Your task to perform on an android device: Open sound settings Image 0: 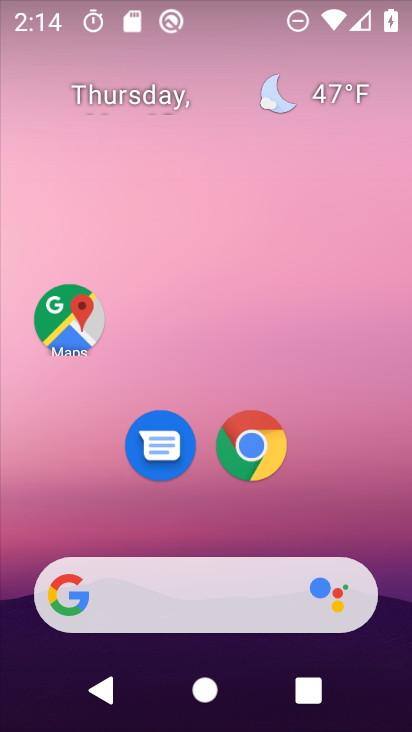
Step 0: drag from (200, 534) to (210, 271)
Your task to perform on an android device: Open sound settings Image 1: 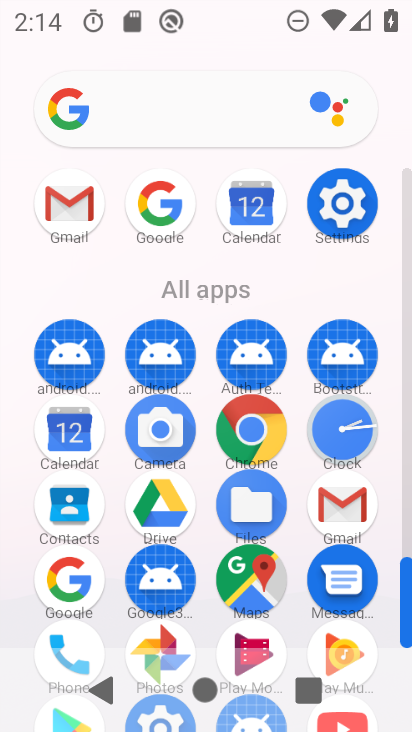
Step 1: click (339, 224)
Your task to perform on an android device: Open sound settings Image 2: 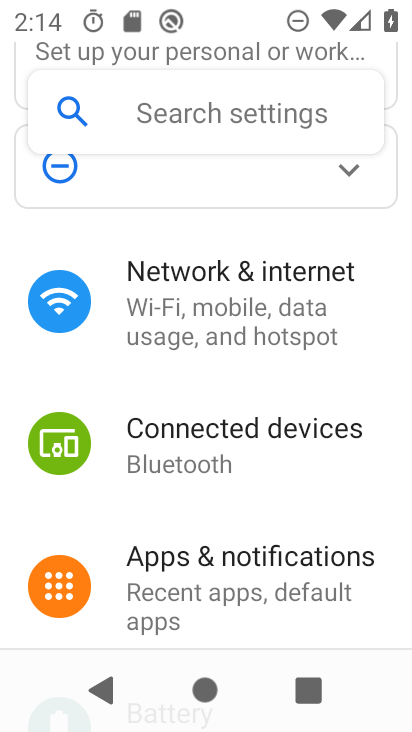
Step 2: drag from (253, 583) to (284, 317)
Your task to perform on an android device: Open sound settings Image 3: 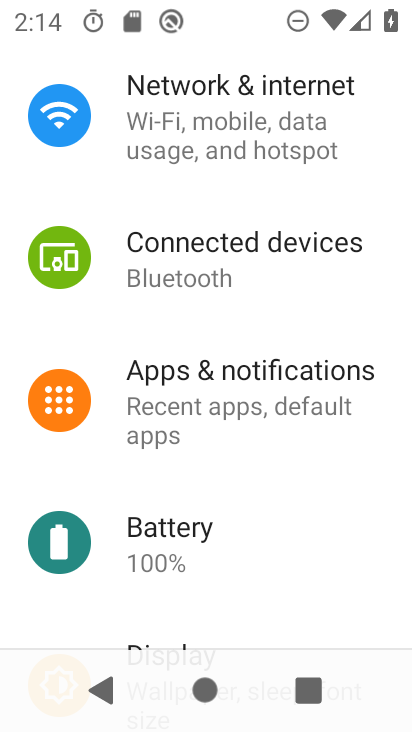
Step 3: drag from (220, 551) to (262, 335)
Your task to perform on an android device: Open sound settings Image 4: 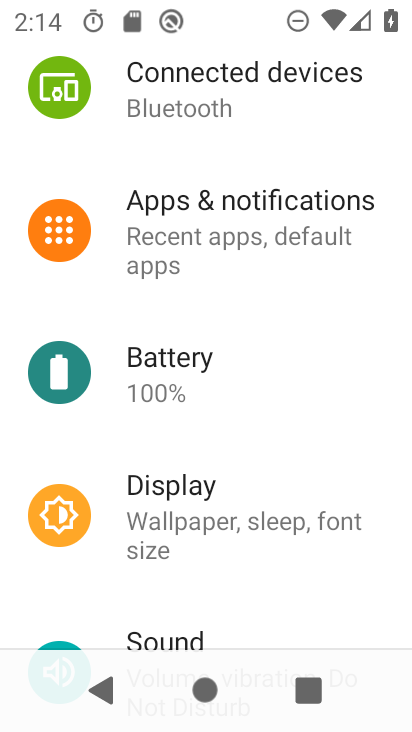
Step 4: drag from (256, 519) to (284, 378)
Your task to perform on an android device: Open sound settings Image 5: 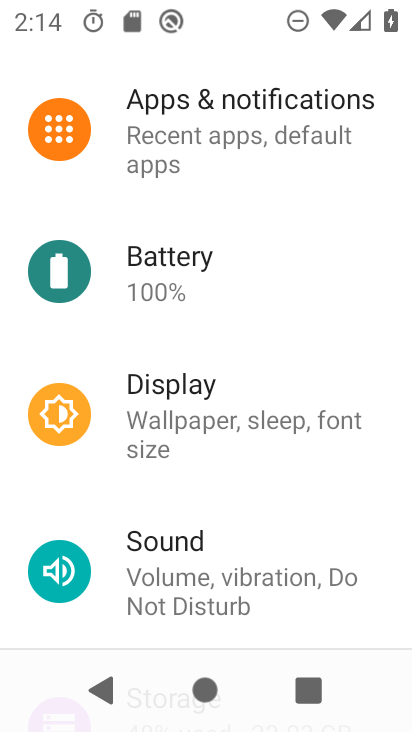
Step 5: click (215, 553)
Your task to perform on an android device: Open sound settings Image 6: 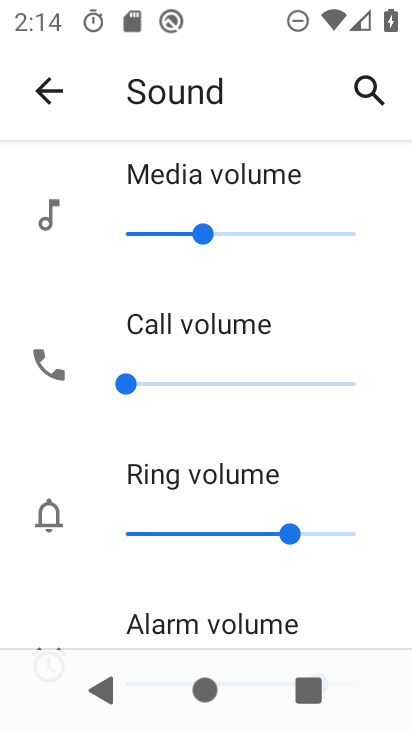
Step 6: drag from (222, 577) to (248, 361)
Your task to perform on an android device: Open sound settings Image 7: 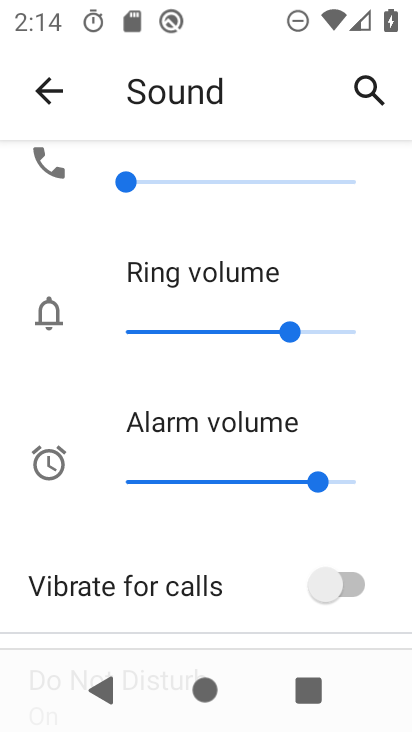
Step 7: drag from (220, 539) to (232, 267)
Your task to perform on an android device: Open sound settings Image 8: 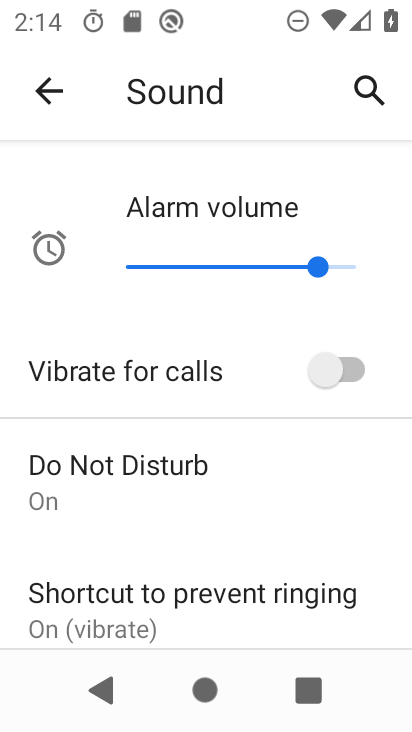
Step 8: drag from (225, 537) to (233, 324)
Your task to perform on an android device: Open sound settings Image 9: 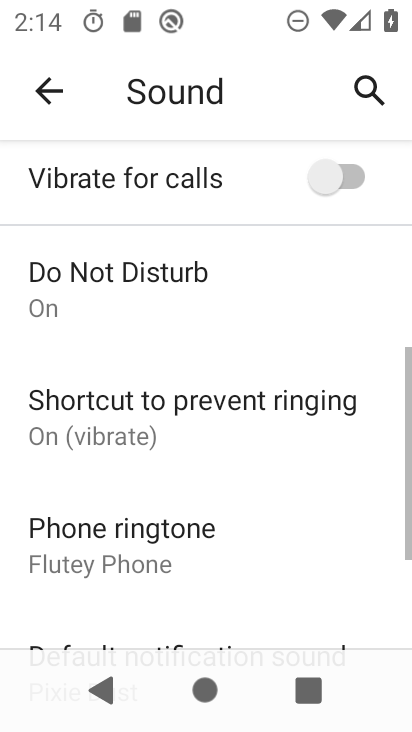
Step 9: drag from (235, 548) to (243, 316)
Your task to perform on an android device: Open sound settings Image 10: 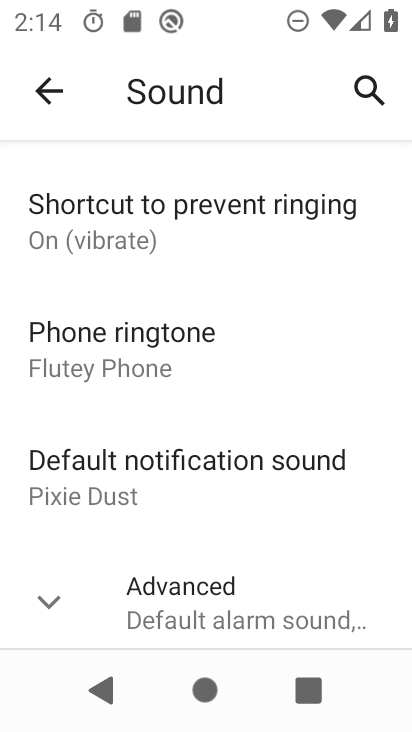
Step 10: drag from (243, 563) to (258, 327)
Your task to perform on an android device: Open sound settings Image 11: 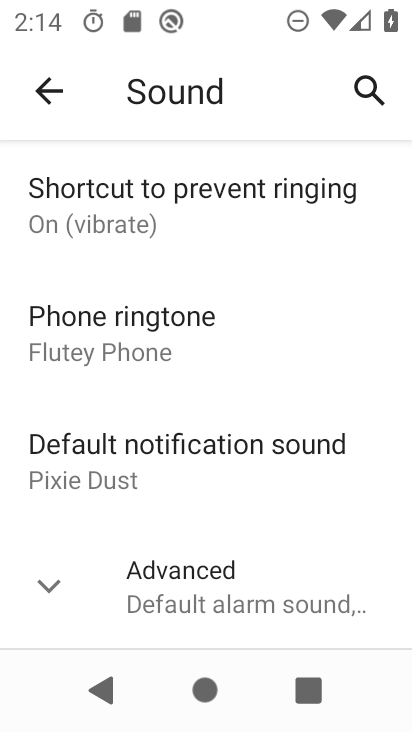
Step 11: drag from (272, 579) to (275, 310)
Your task to perform on an android device: Open sound settings Image 12: 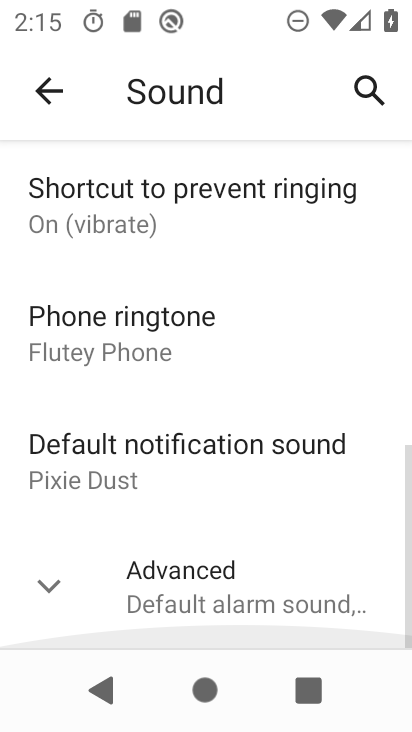
Step 12: drag from (276, 563) to (289, 361)
Your task to perform on an android device: Open sound settings Image 13: 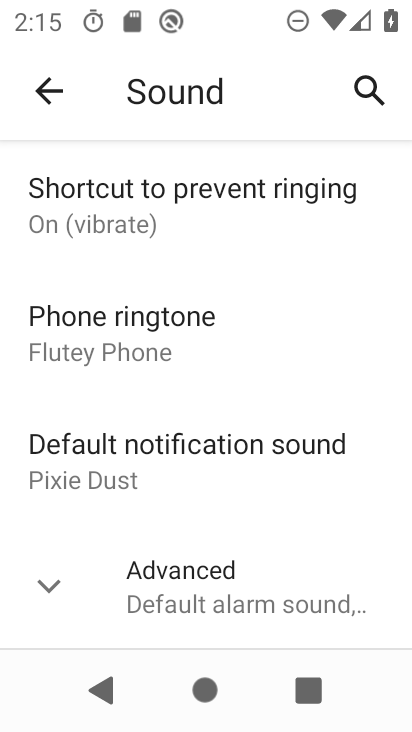
Step 13: click (251, 582)
Your task to perform on an android device: Open sound settings Image 14: 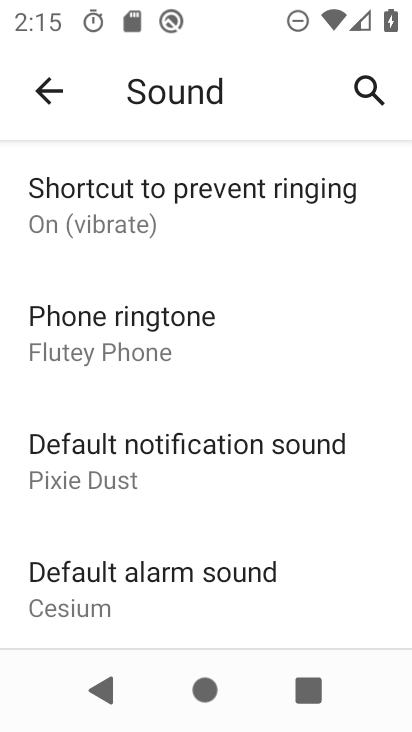
Step 14: task complete